Your task to perform on an android device: check battery use Image 0: 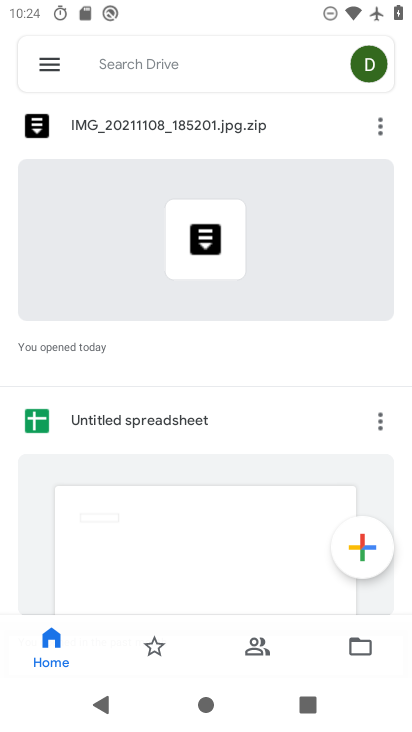
Step 0: press home button
Your task to perform on an android device: check battery use Image 1: 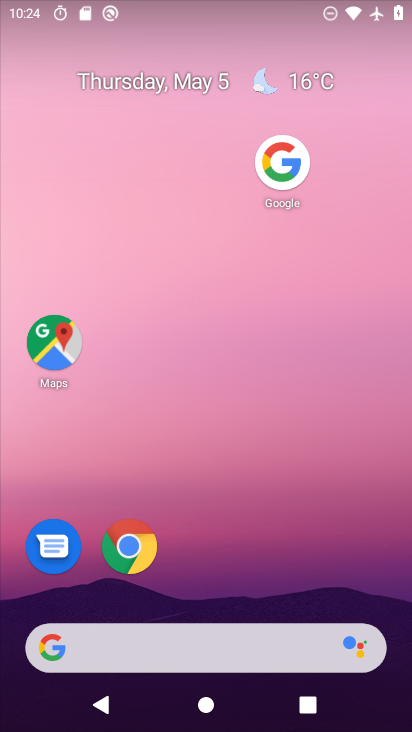
Step 1: drag from (188, 645) to (355, 43)
Your task to perform on an android device: check battery use Image 2: 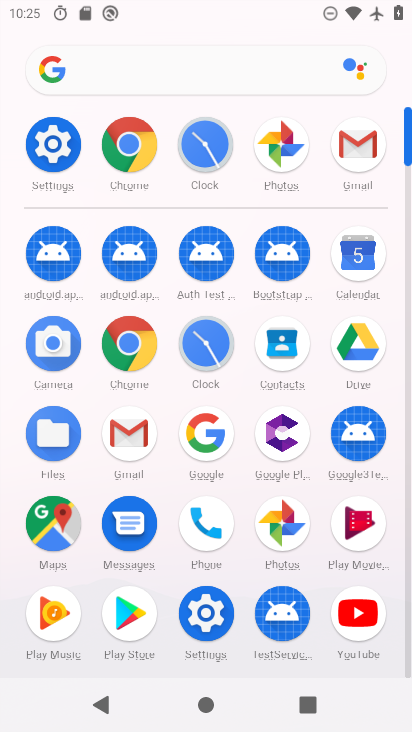
Step 2: click (50, 152)
Your task to perform on an android device: check battery use Image 3: 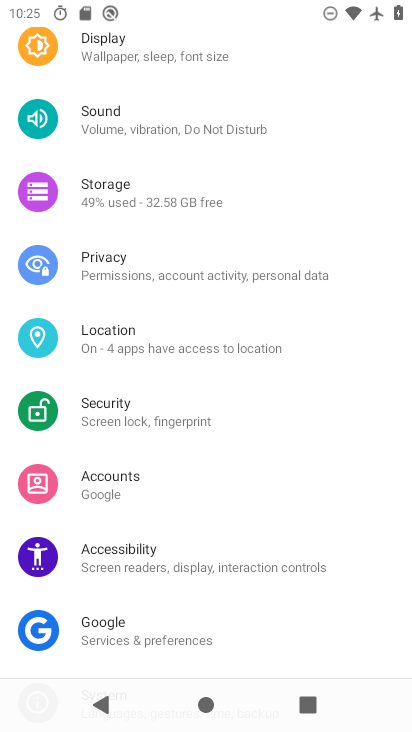
Step 3: drag from (332, 101) to (267, 614)
Your task to perform on an android device: check battery use Image 4: 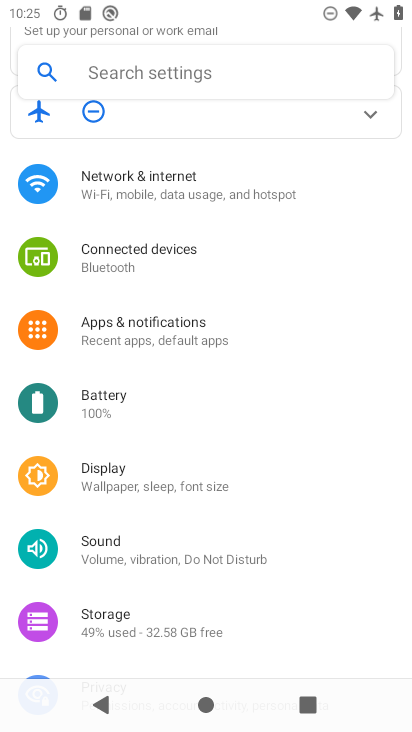
Step 4: click (92, 401)
Your task to perform on an android device: check battery use Image 5: 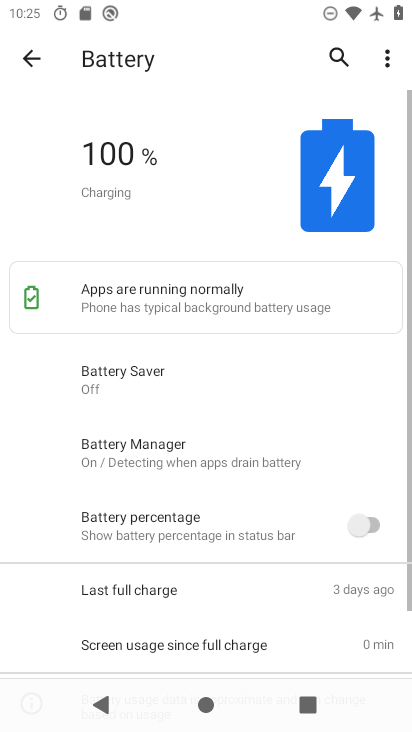
Step 5: click (388, 58)
Your task to perform on an android device: check battery use Image 6: 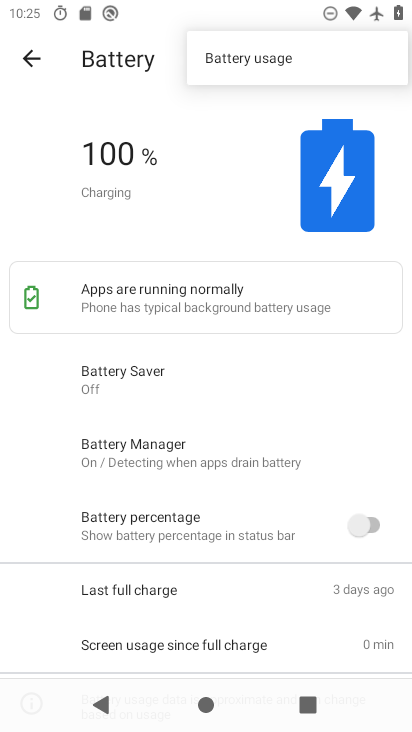
Step 6: click (262, 58)
Your task to perform on an android device: check battery use Image 7: 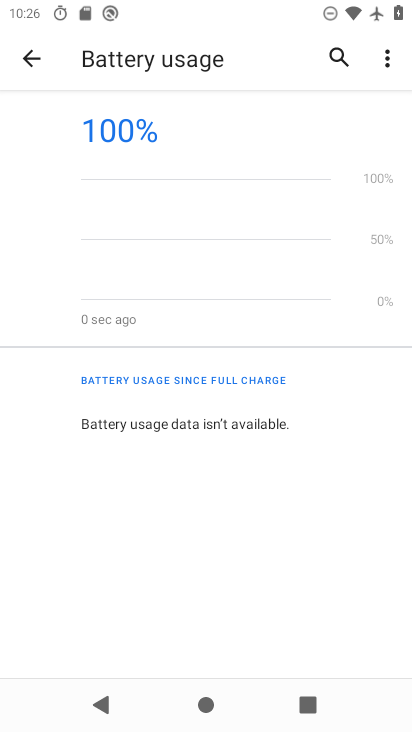
Step 7: task complete